Your task to perform on an android device: empty trash in the gmail app Image 0: 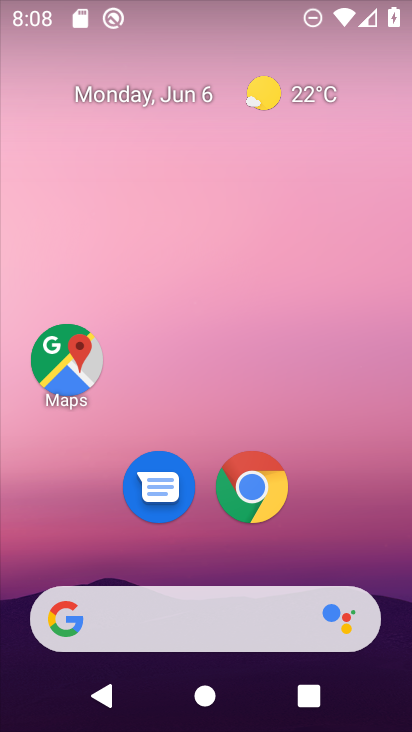
Step 0: drag from (391, 617) to (292, 55)
Your task to perform on an android device: empty trash in the gmail app Image 1: 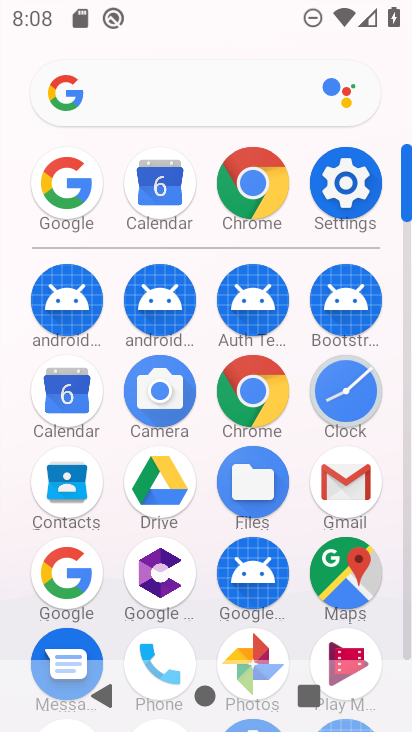
Step 1: click (354, 474)
Your task to perform on an android device: empty trash in the gmail app Image 2: 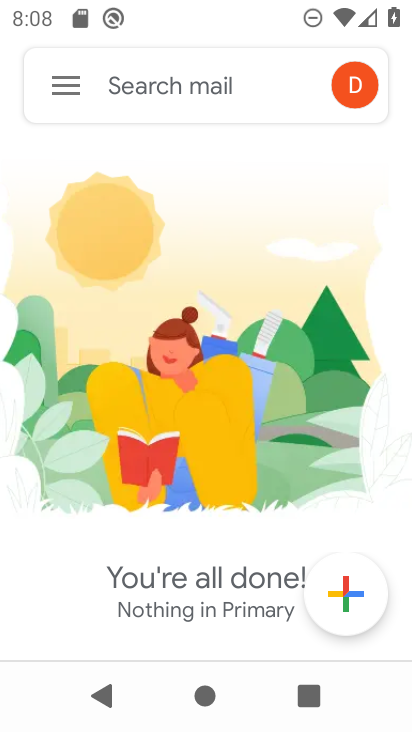
Step 2: click (63, 84)
Your task to perform on an android device: empty trash in the gmail app Image 3: 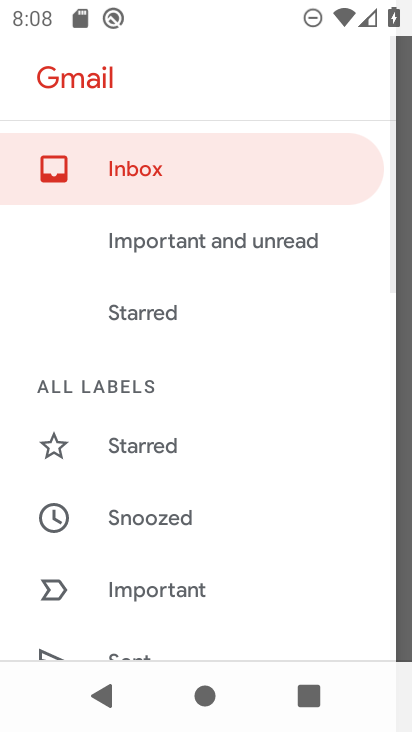
Step 3: drag from (177, 595) to (201, 106)
Your task to perform on an android device: empty trash in the gmail app Image 4: 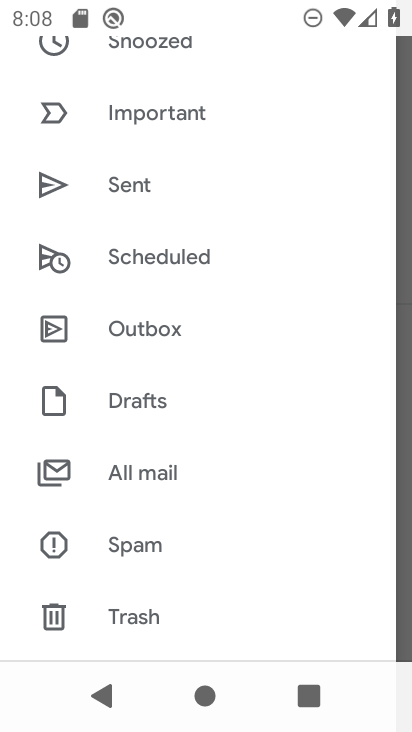
Step 4: drag from (157, 570) to (241, 96)
Your task to perform on an android device: empty trash in the gmail app Image 5: 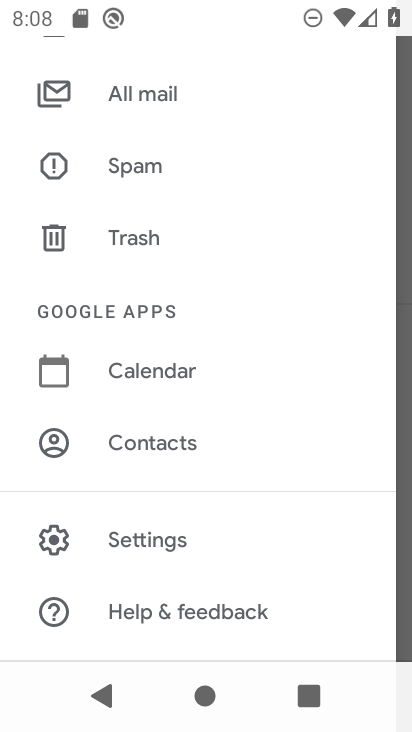
Step 5: click (134, 530)
Your task to perform on an android device: empty trash in the gmail app Image 6: 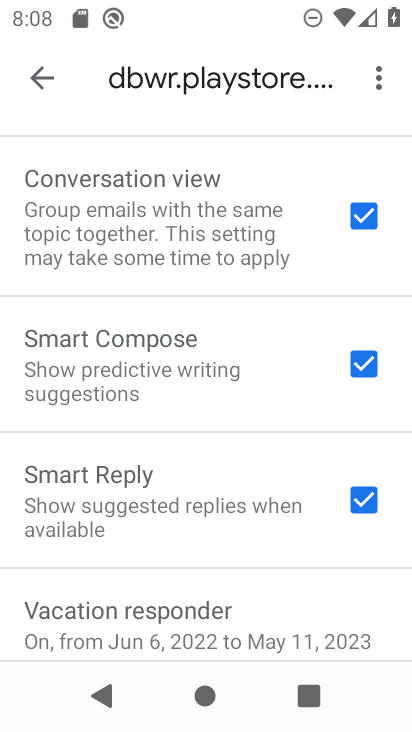
Step 6: press back button
Your task to perform on an android device: empty trash in the gmail app Image 7: 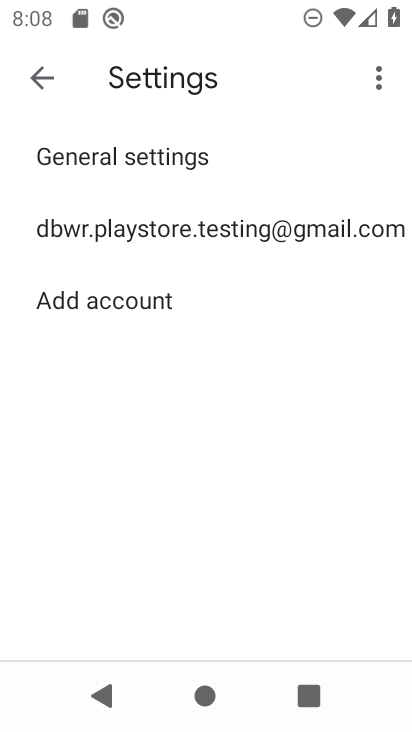
Step 7: press back button
Your task to perform on an android device: empty trash in the gmail app Image 8: 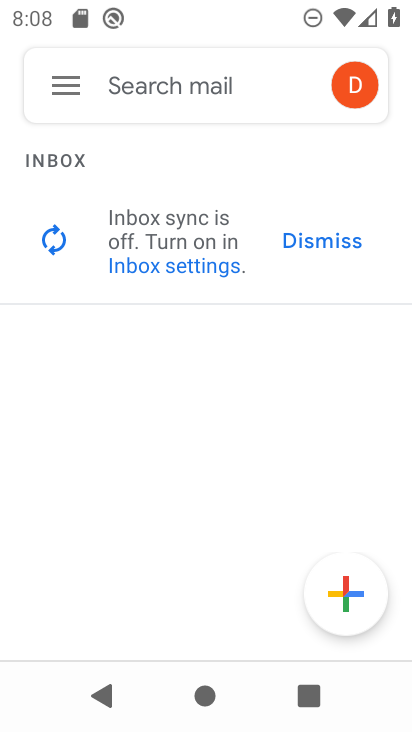
Step 8: click (80, 98)
Your task to perform on an android device: empty trash in the gmail app Image 9: 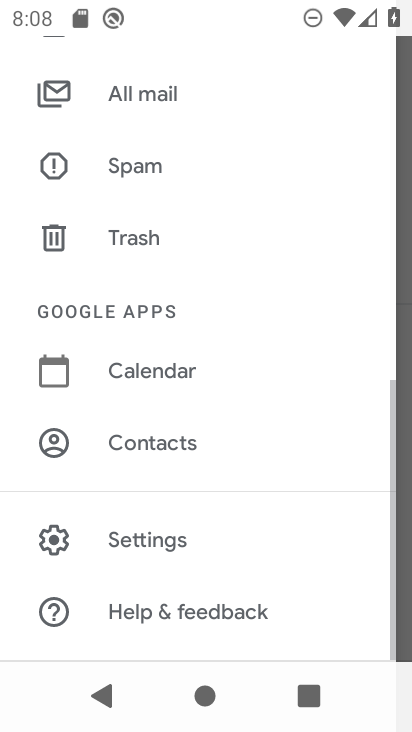
Step 9: click (139, 240)
Your task to perform on an android device: empty trash in the gmail app Image 10: 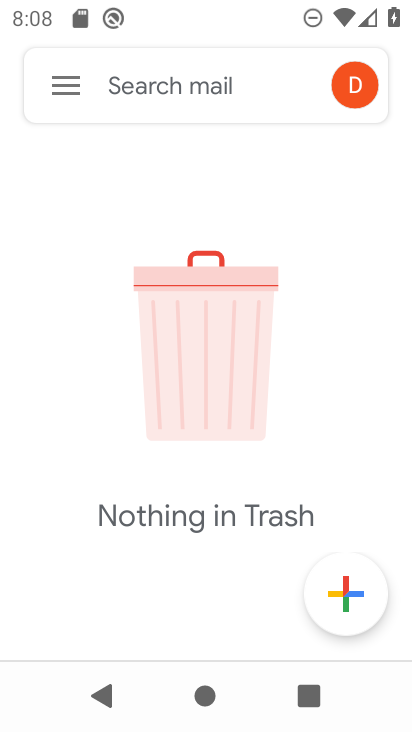
Step 10: task complete